Your task to perform on an android device: toggle priority inbox in the gmail app Image 0: 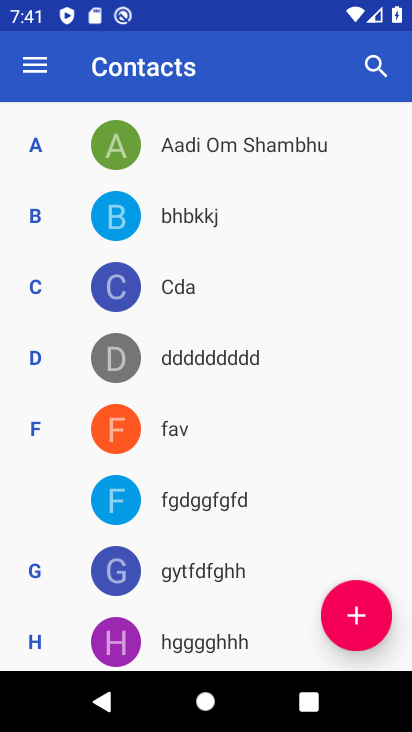
Step 0: press home button
Your task to perform on an android device: toggle priority inbox in the gmail app Image 1: 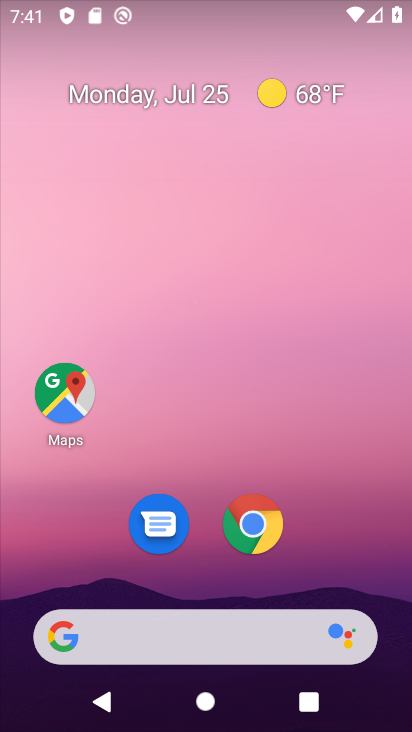
Step 1: drag from (318, 561) to (340, 44)
Your task to perform on an android device: toggle priority inbox in the gmail app Image 2: 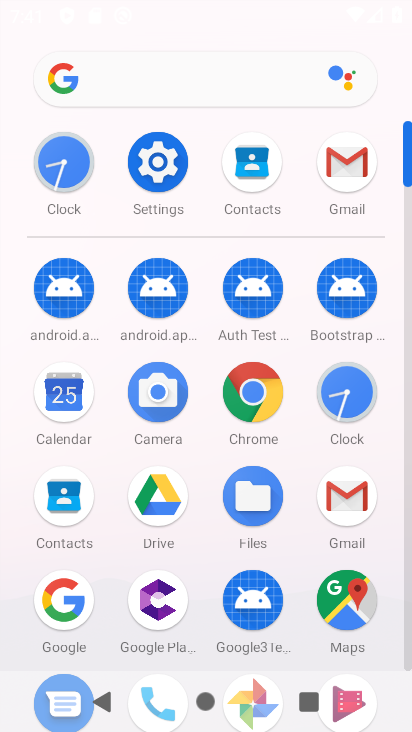
Step 2: click (346, 167)
Your task to perform on an android device: toggle priority inbox in the gmail app Image 3: 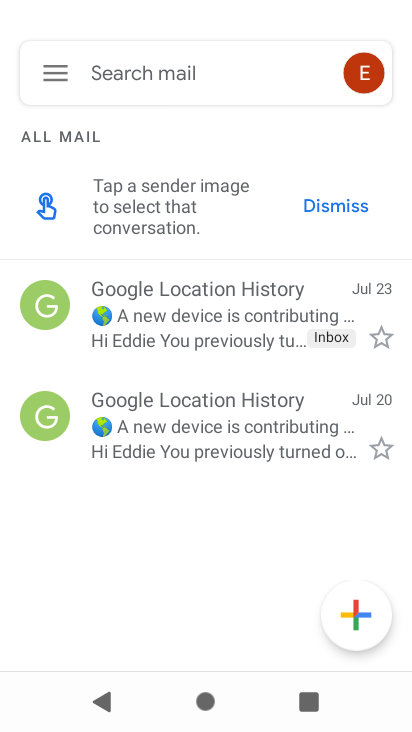
Step 3: click (61, 77)
Your task to perform on an android device: toggle priority inbox in the gmail app Image 4: 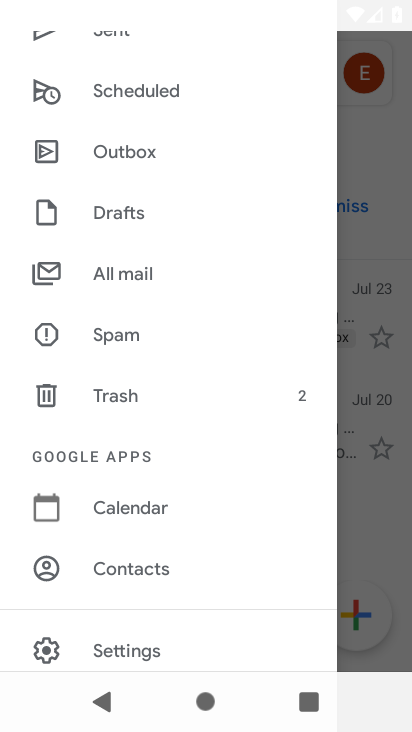
Step 4: click (155, 646)
Your task to perform on an android device: toggle priority inbox in the gmail app Image 5: 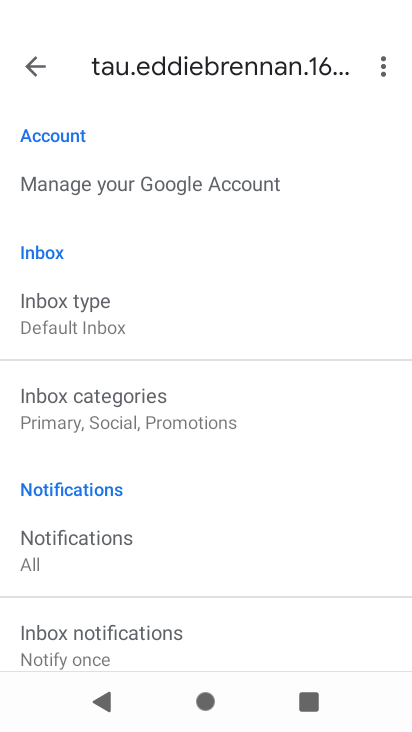
Step 5: click (106, 312)
Your task to perform on an android device: toggle priority inbox in the gmail app Image 6: 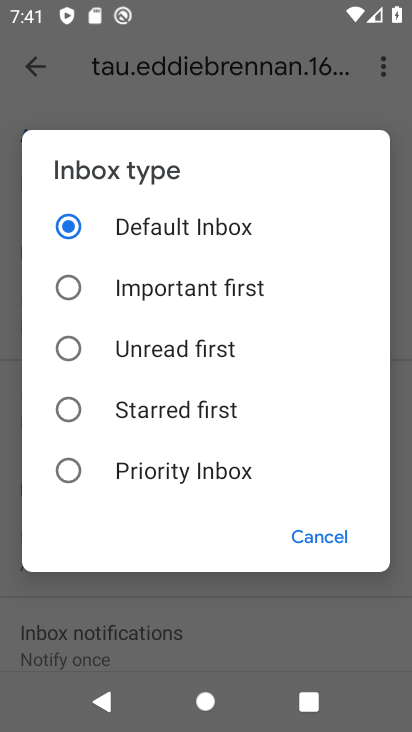
Step 6: click (69, 473)
Your task to perform on an android device: toggle priority inbox in the gmail app Image 7: 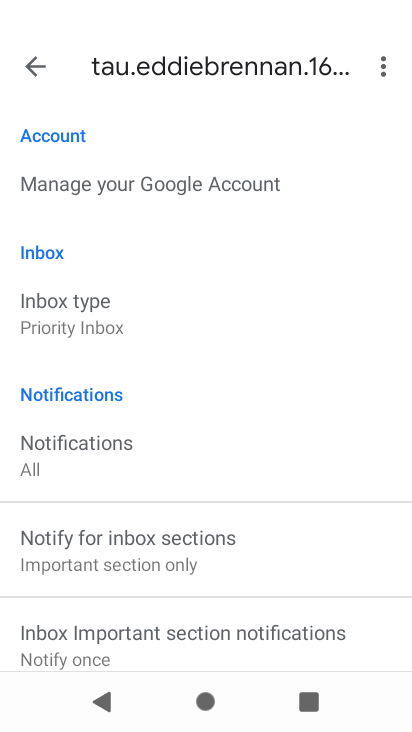
Step 7: task complete